Your task to perform on an android device: Go to Google Image 0: 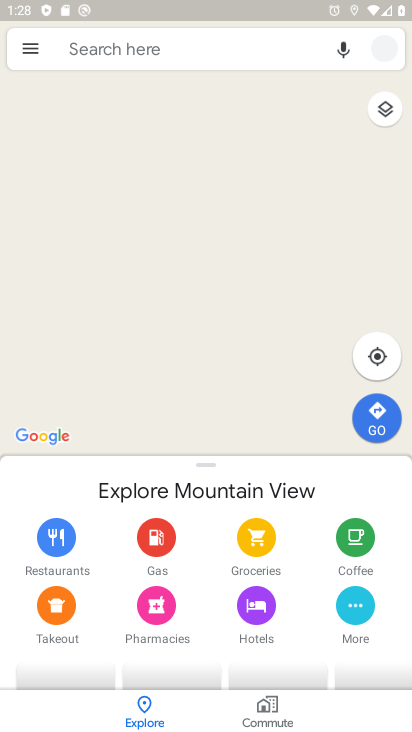
Step 0: click (215, 71)
Your task to perform on an android device: Go to Google Image 1: 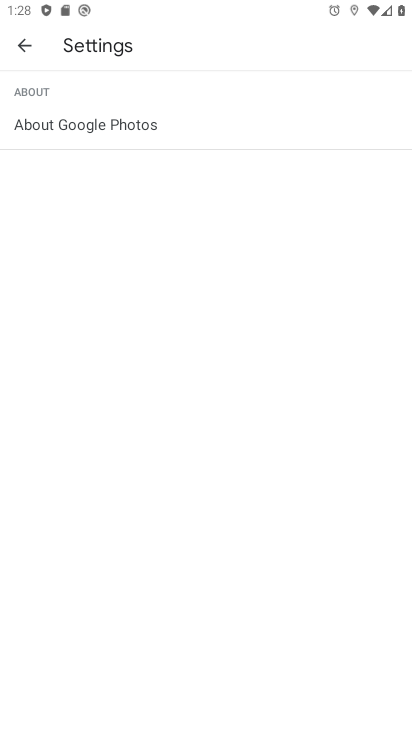
Step 1: press home button
Your task to perform on an android device: Go to Google Image 2: 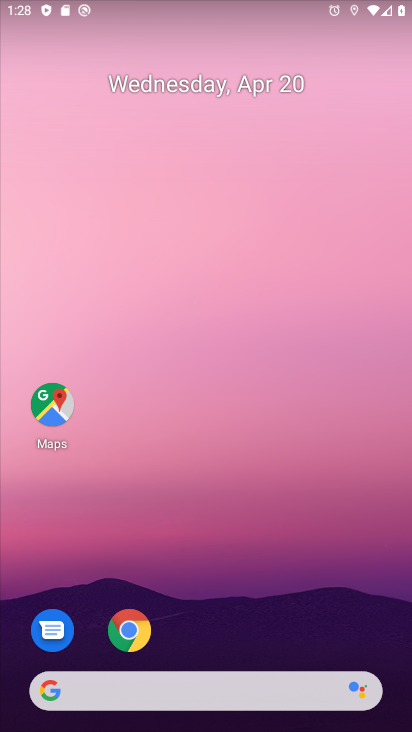
Step 2: drag from (205, 631) to (90, 86)
Your task to perform on an android device: Go to Google Image 3: 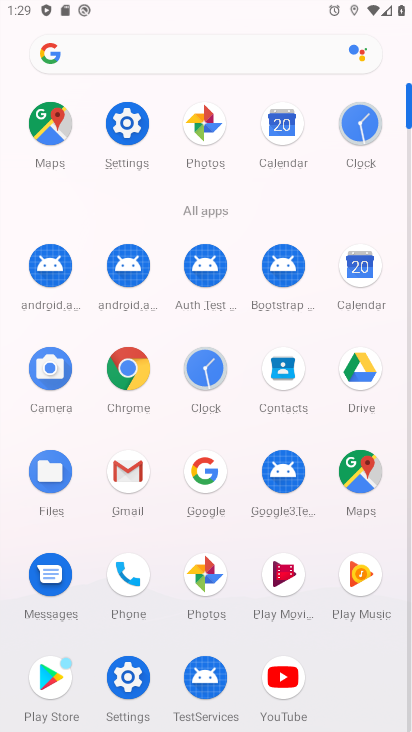
Step 3: click (207, 476)
Your task to perform on an android device: Go to Google Image 4: 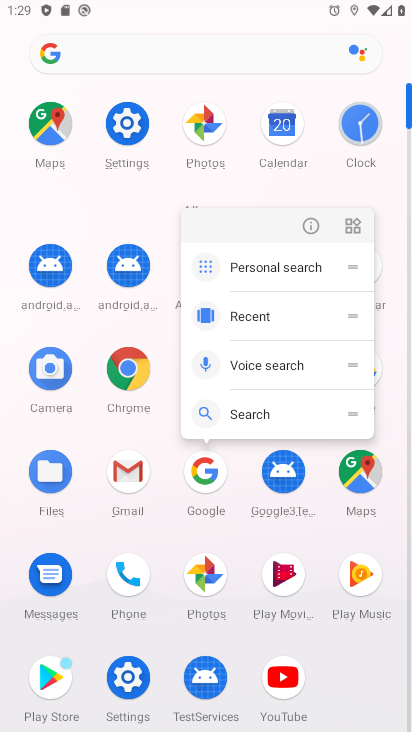
Step 4: click (209, 473)
Your task to perform on an android device: Go to Google Image 5: 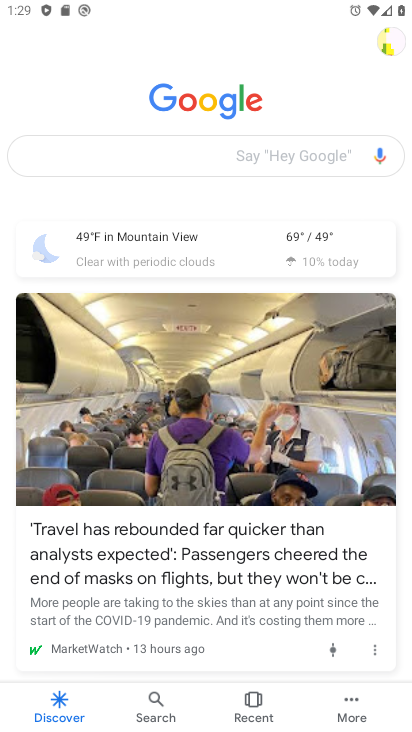
Step 5: task complete